Your task to perform on an android device: open a new tab in the chrome app Image 0: 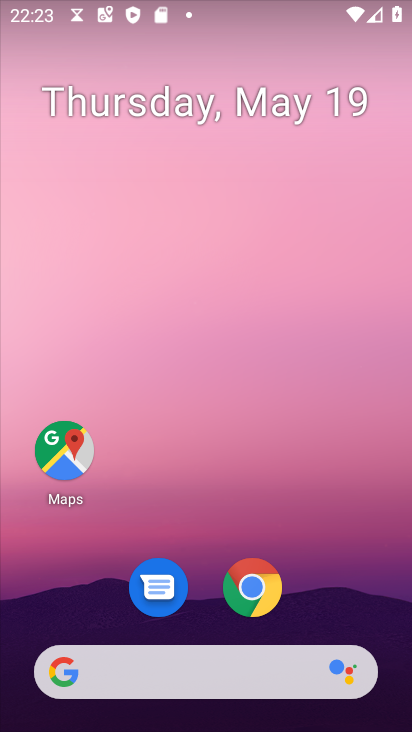
Step 0: drag from (175, 671) to (260, 0)
Your task to perform on an android device: open a new tab in the chrome app Image 1: 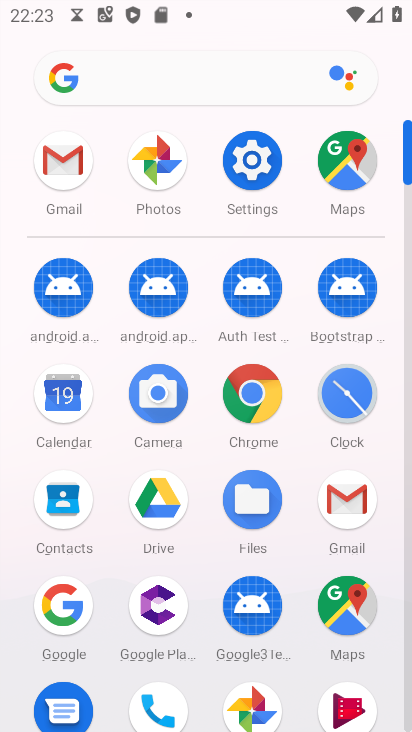
Step 1: click (253, 400)
Your task to perform on an android device: open a new tab in the chrome app Image 2: 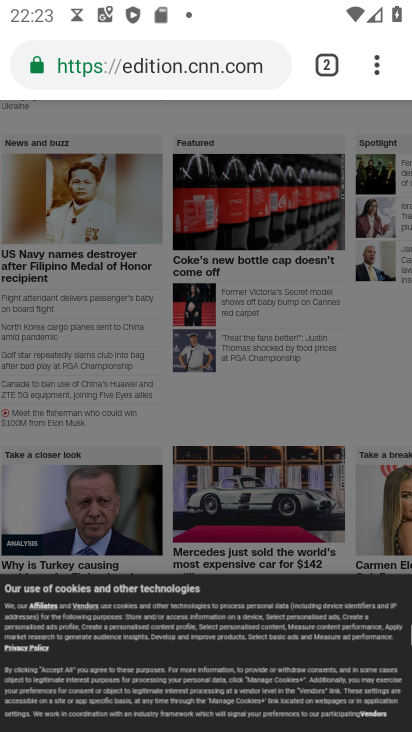
Step 2: task complete